Your task to perform on an android device: change the upload size in google photos Image 0: 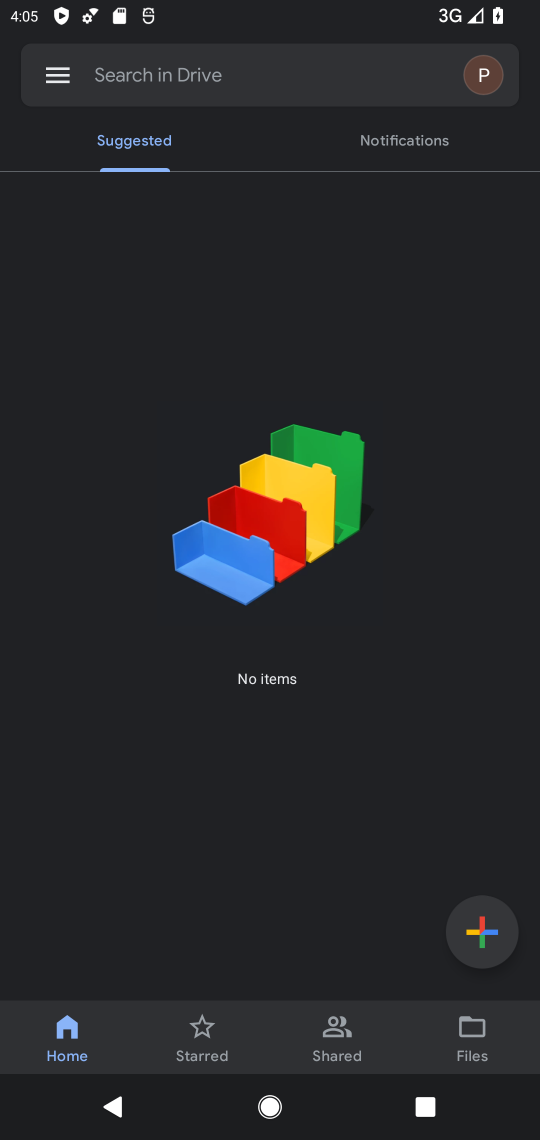
Step 0: press home button
Your task to perform on an android device: change the upload size in google photos Image 1: 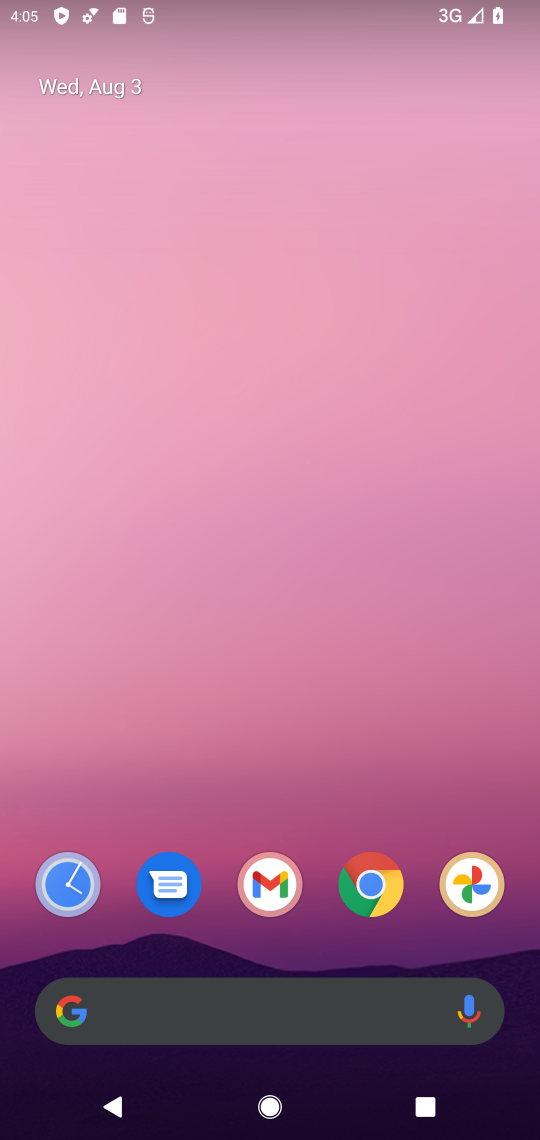
Step 1: click (461, 880)
Your task to perform on an android device: change the upload size in google photos Image 2: 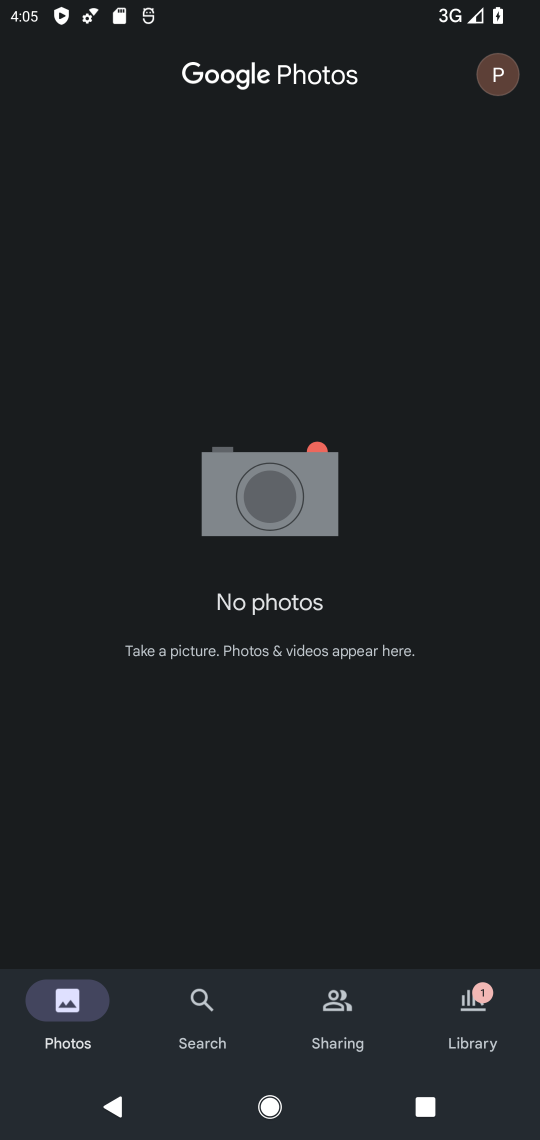
Step 2: task complete